Your task to perform on an android device: see creations saved in the google photos Image 0: 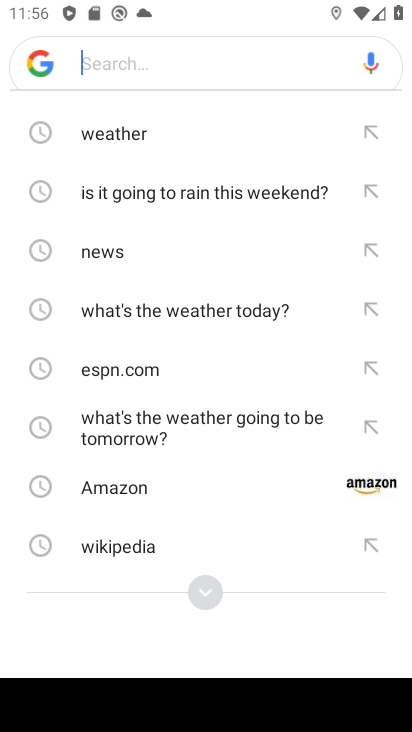
Step 0: press back button
Your task to perform on an android device: see creations saved in the google photos Image 1: 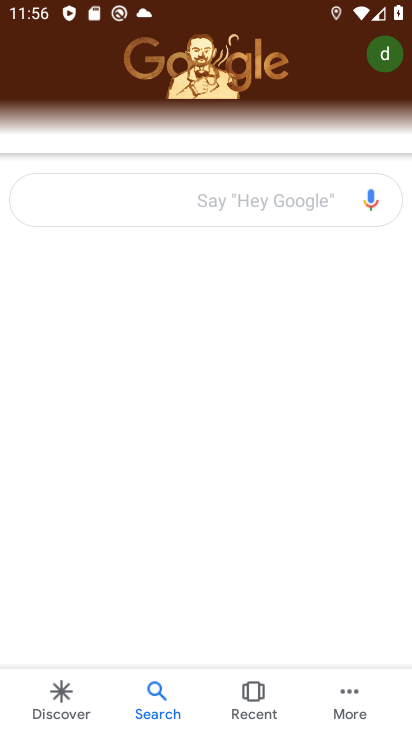
Step 1: click (257, 192)
Your task to perform on an android device: see creations saved in the google photos Image 2: 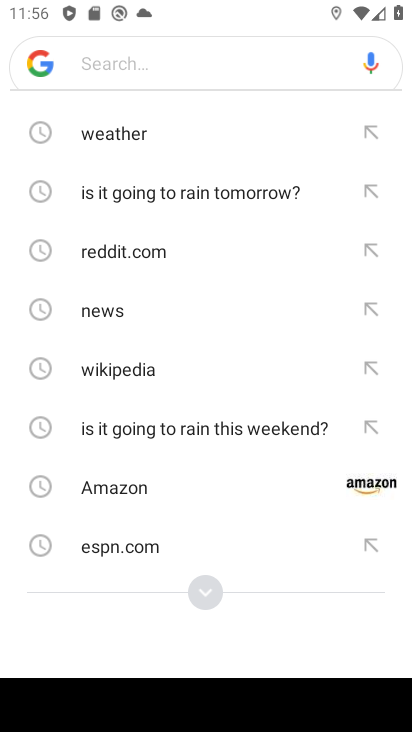
Step 2: press back button
Your task to perform on an android device: see creations saved in the google photos Image 3: 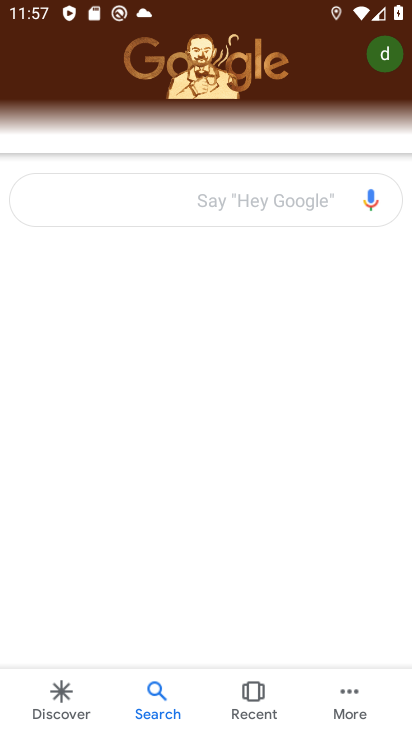
Step 3: press back button
Your task to perform on an android device: see creations saved in the google photos Image 4: 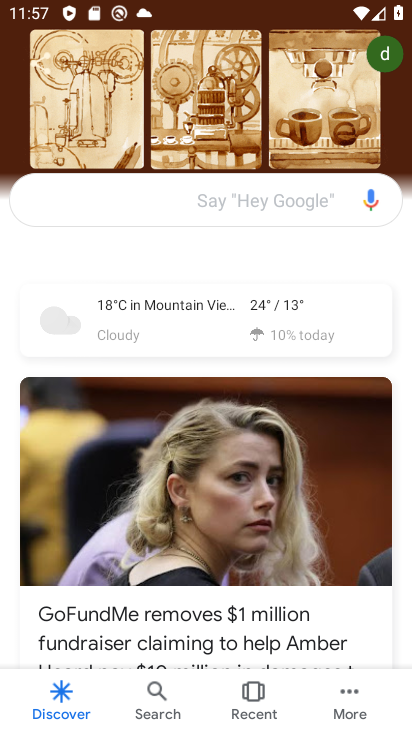
Step 4: press back button
Your task to perform on an android device: see creations saved in the google photos Image 5: 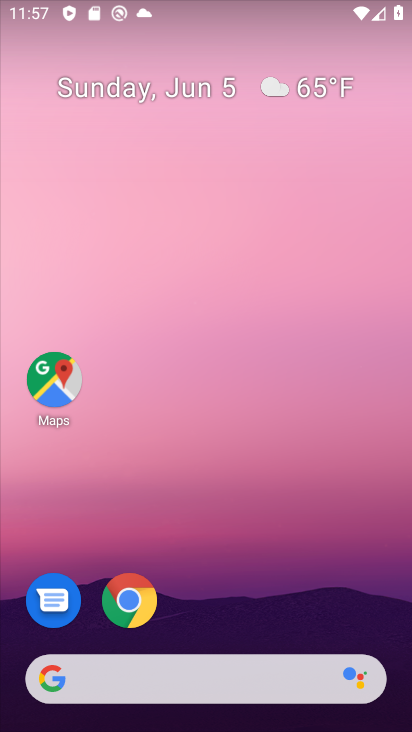
Step 5: drag from (399, 713) to (322, 179)
Your task to perform on an android device: see creations saved in the google photos Image 6: 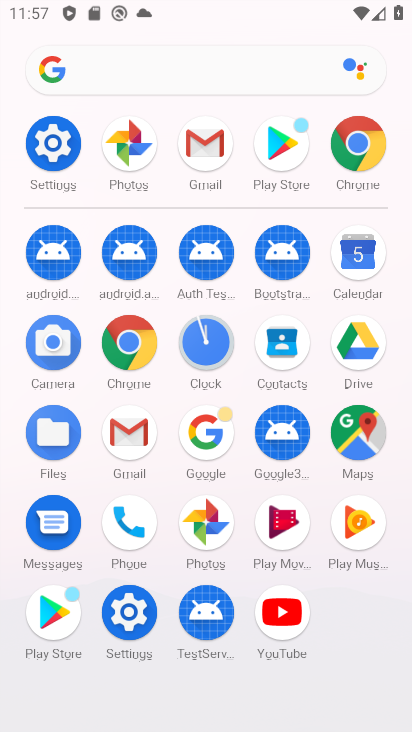
Step 6: click (198, 524)
Your task to perform on an android device: see creations saved in the google photos Image 7: 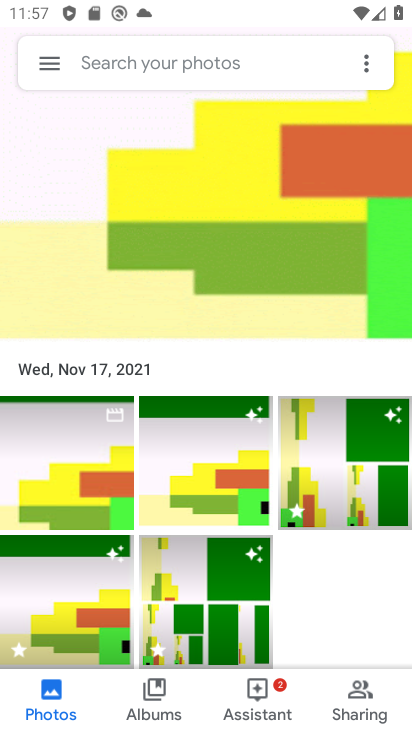
Step 7: click (205, 485)
Your task to perform on an android device: see creations saved in the google photos Image 8: 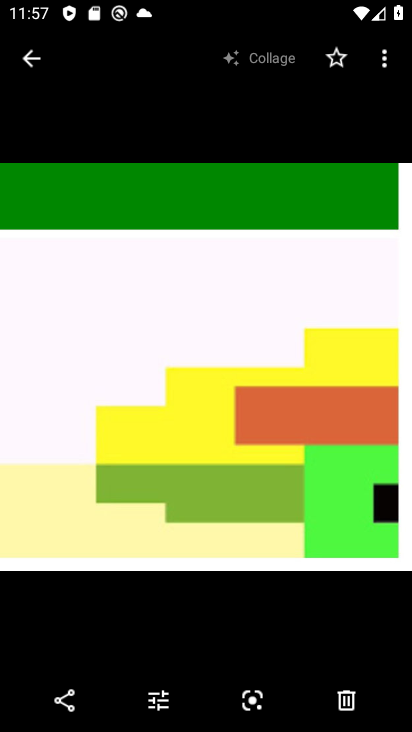
Step 8: click (33, 64)
Your task to perform on an android device: see creations saved in the google photos Image 9: 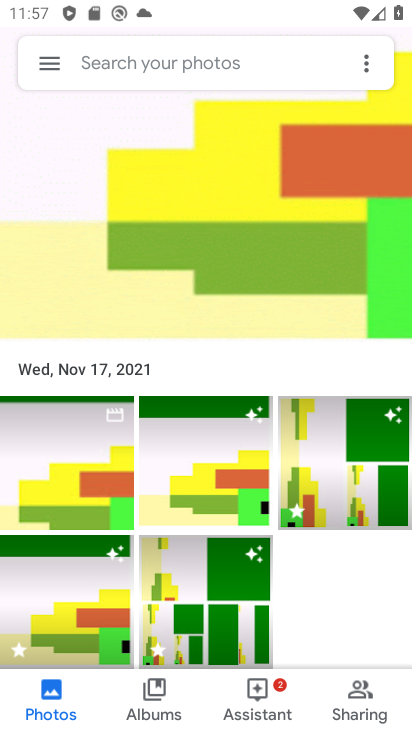
Step 9: click (362, 481)
Your task to perform on an android device: see creations saved in the google photos Image 10: 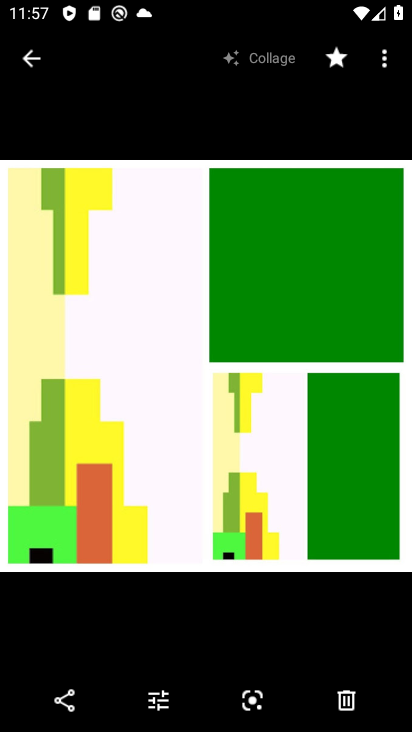
Step 10: click (19, 60)
Your task to perform on an android device: see creations saved in the google photos Image 11: 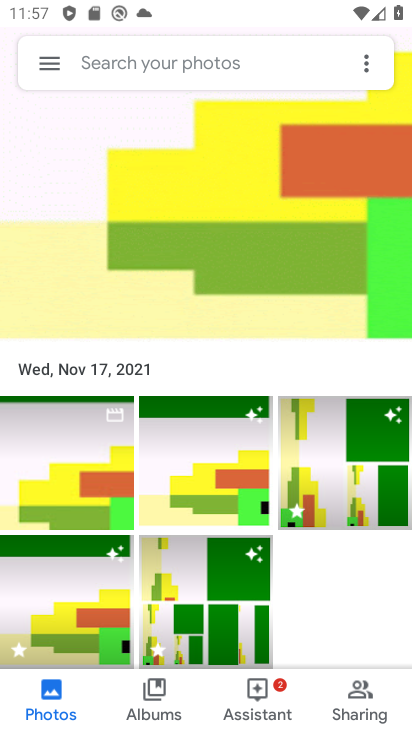
Step 11: click (106, 564)
Your task to perform on an android device: see creations saved in the google photos Image 12: 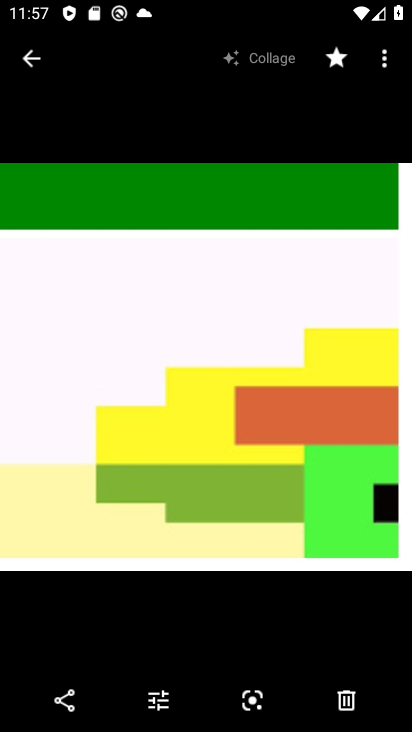
Step 12: click (38, 65)
Your task to perform on an android device: see creations saved in the google photos Image 13: 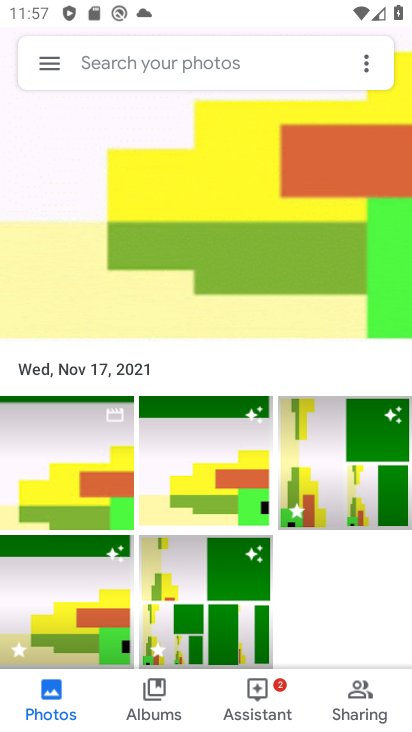
Step 13: click (200, 610)
Your task to perform on an android device: see creations saved in the google photos Image 14: 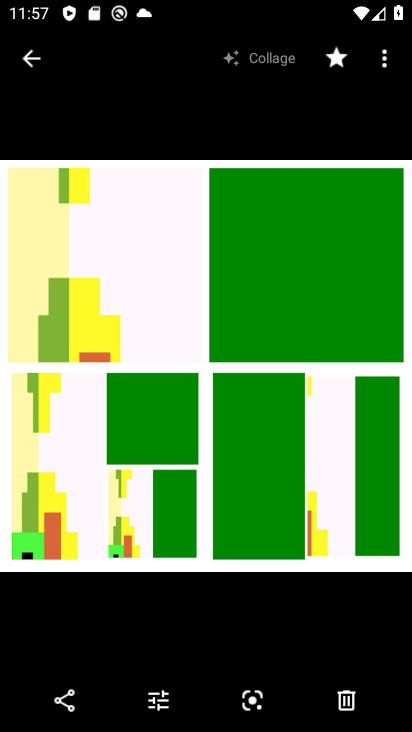
Step 14: click (44, 56)
Your task to perform on an android device: see creations saved in the google photos Image 15: 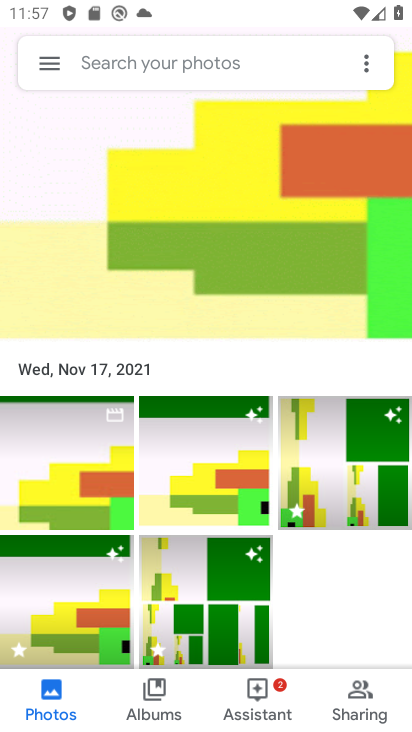
Step 15: task complete